Your task to perform on an android device: Open the phone app and click the voicemail tab. Image 0: 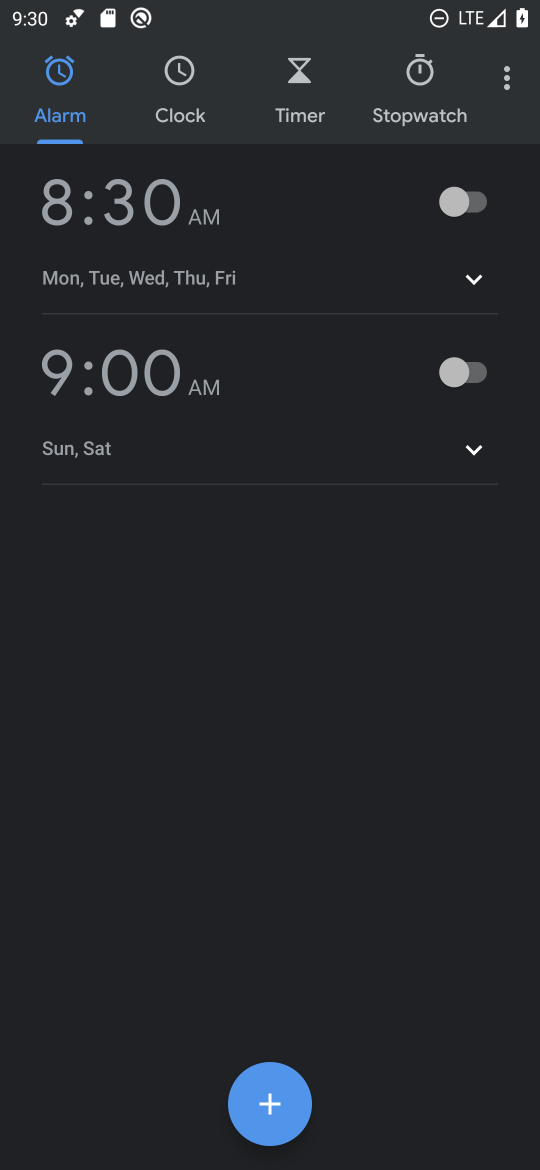
Step 0: press home button
Your task to perform on an android device: Open the phone app and click the voicemail tab. Image 1: 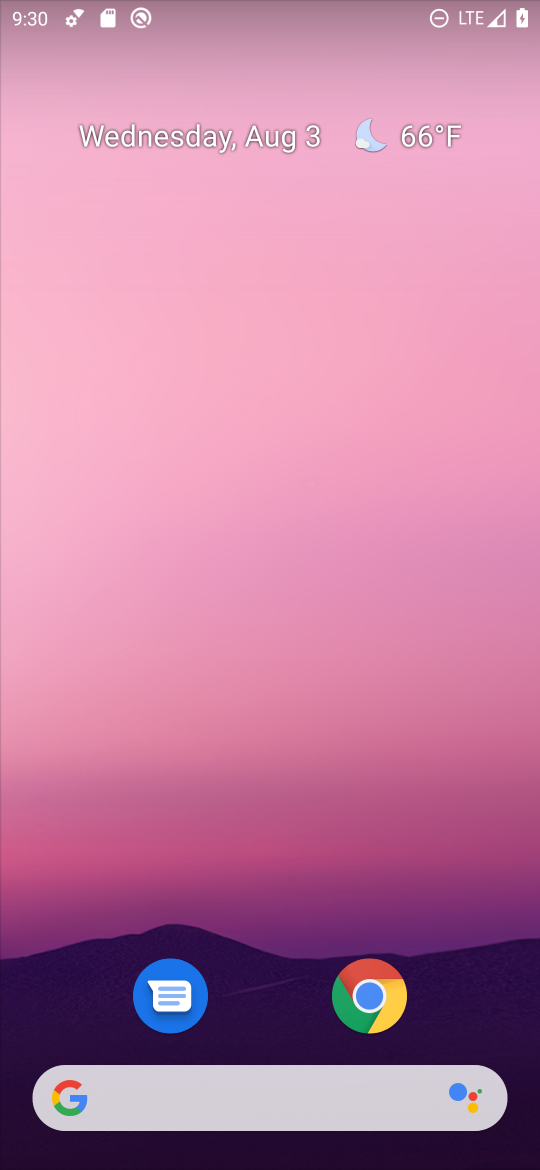
Step 1: click (525, 862)
Your task to perform on an android device: Open the phone app and click the voicemail tab. Image 2: 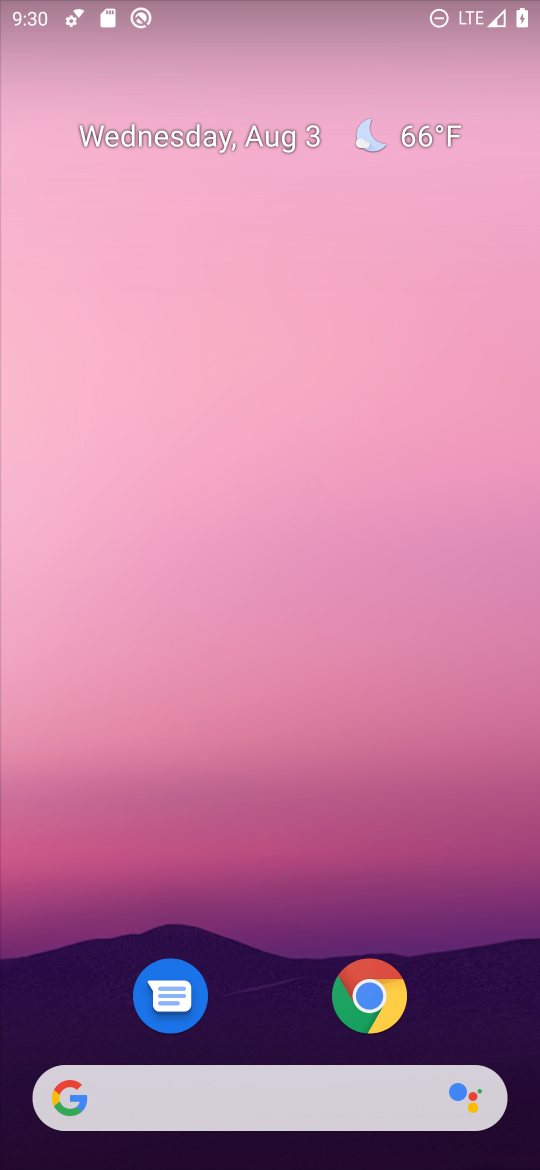
Step 2: drag from (363, 914) to (361, 5)
Your task to perform on an android device: Open the phone app and click the voicemail tab. Image 3: 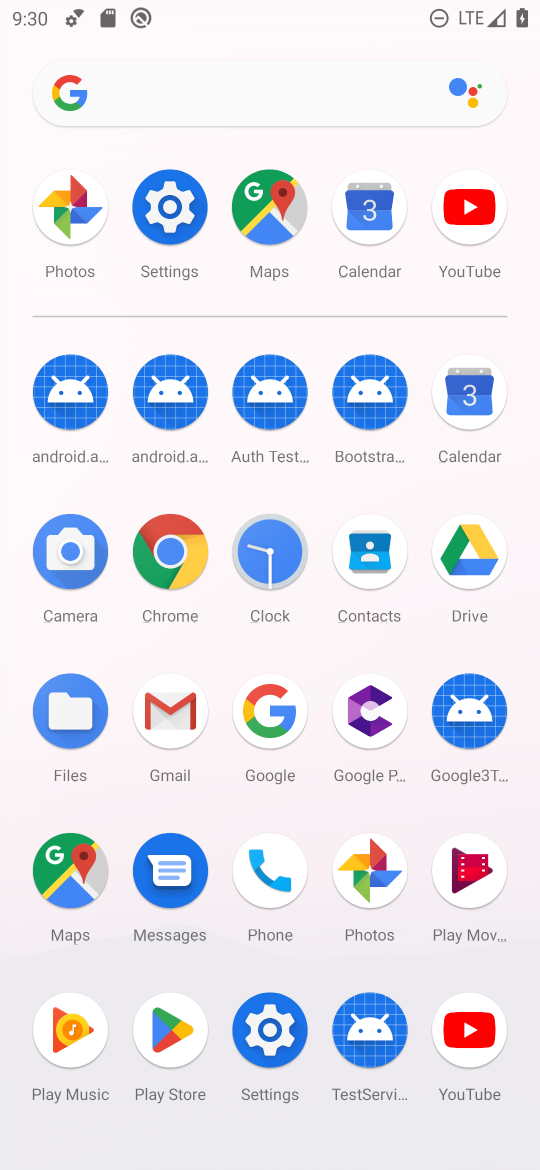
Step 3: click (272, 886)
Your task to perform on an android device: Open the phone app and click the voicemail tab. Image 4: 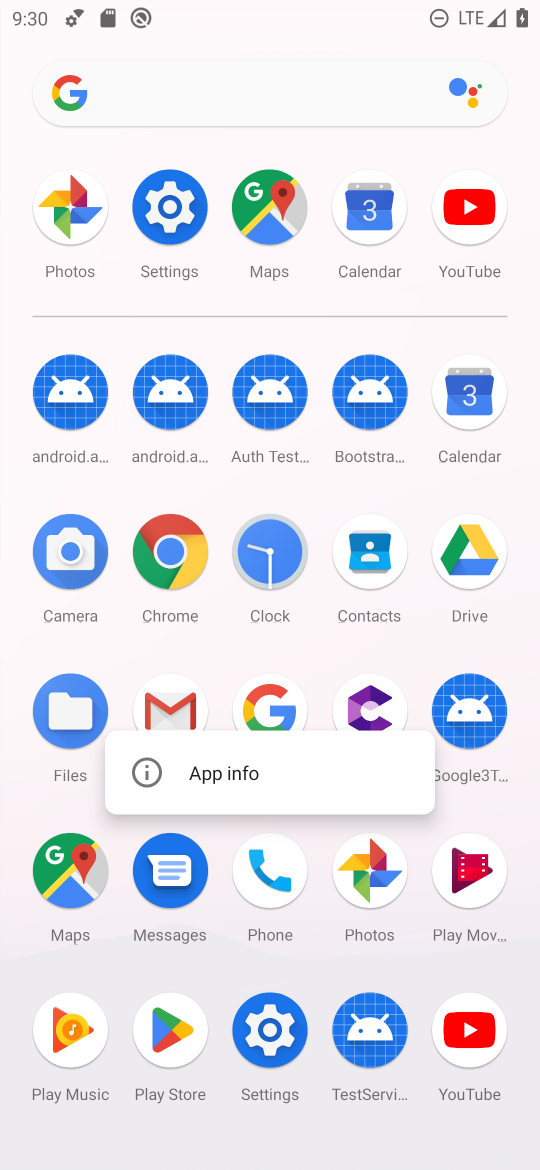
Step 4: click (272, 884)
Your task to perform on an android device: Open the phone app and click the voicemail tab. Image 5: 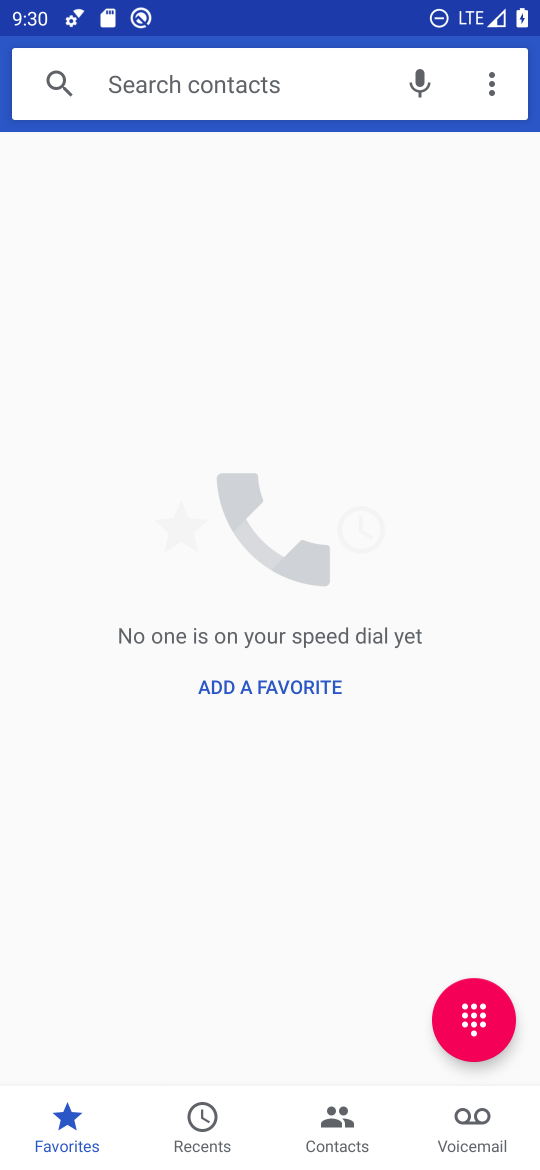
Step 5: click (466, 1113)
Your task to perform on an android device: Open the phone app and click the voicemail tab. Image 6: 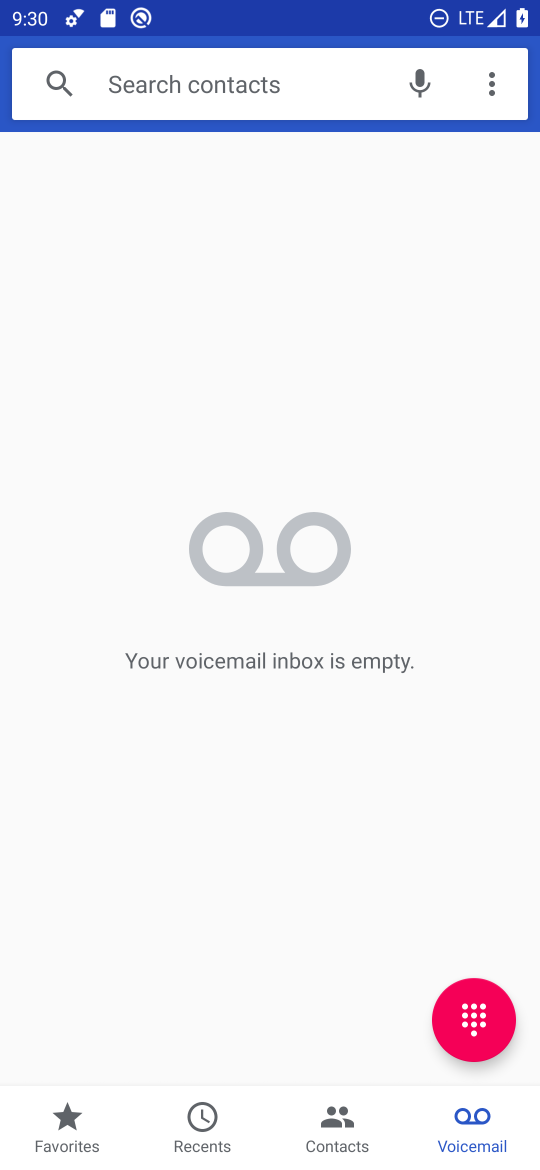
Step 6: task complete